Your task to perform on an android device: What time is it in Tokyo? Image 0: 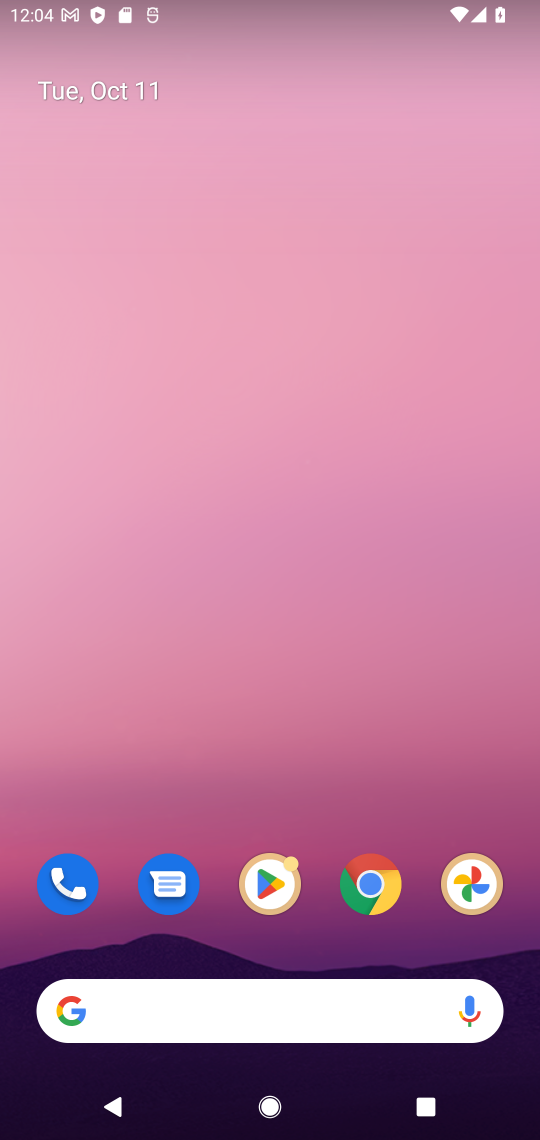
Step 0: drag from (317, 994) to (203, 129)
Your task to perform on an android device: What time is it in Tokyo? Image 1: 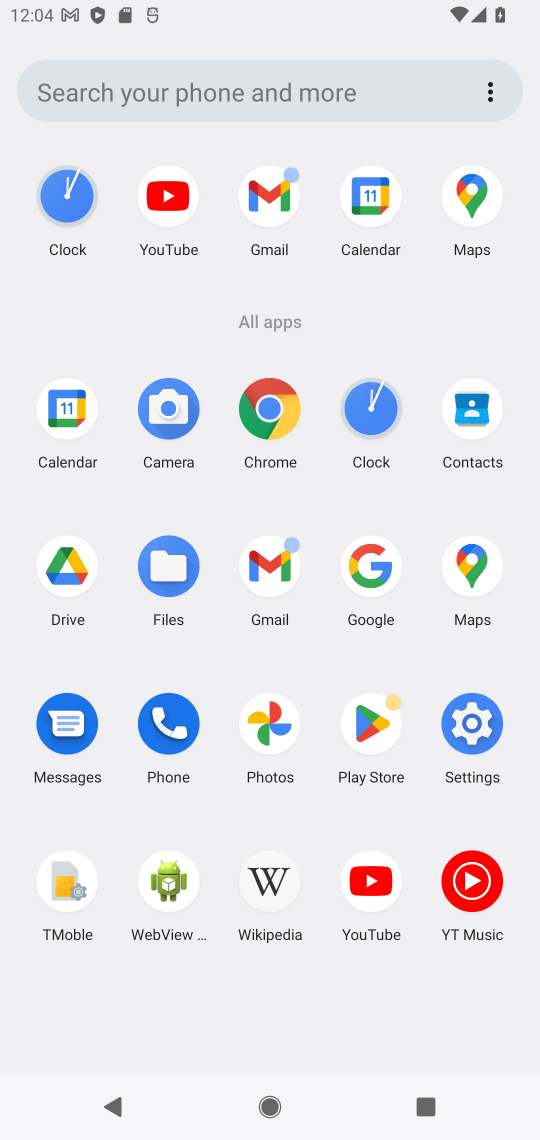
Step 1: click (364, 560)
Your task to perform on an android device: What time is it in Tokyo? Image 2: 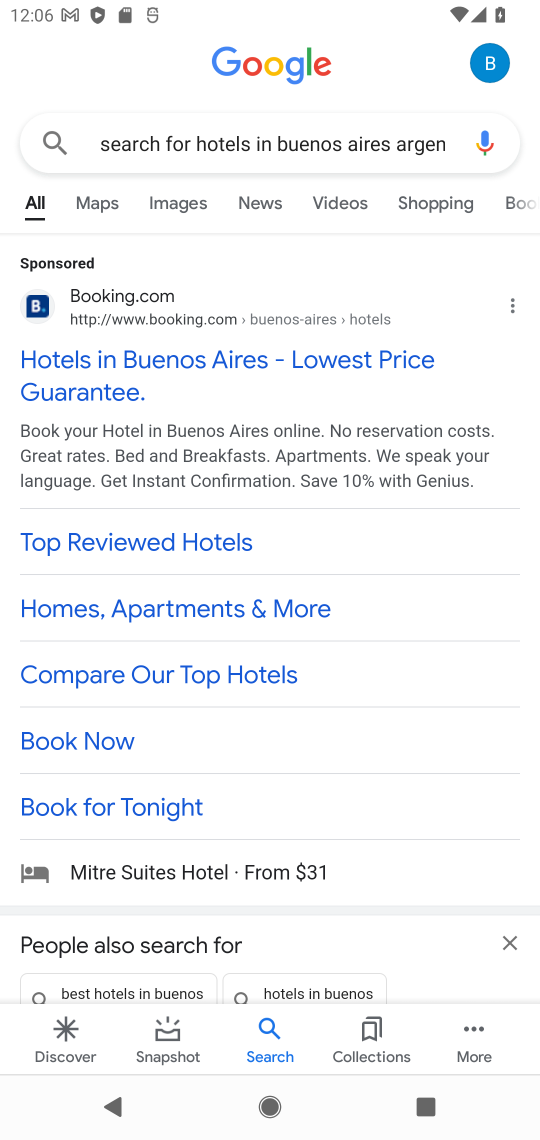
Step 2: click (225, 361)
Your task to perform on an android device: What time is it in Tokyo? Image 3: 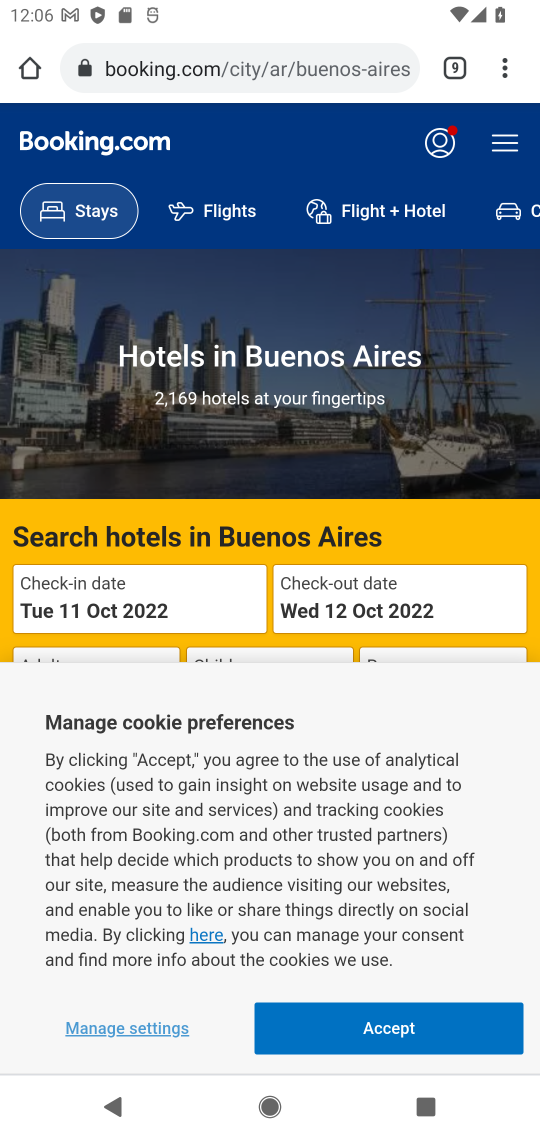
Step 3: task complete